Your task to perform on an android device: uninstall "Google Translate" Image 0: 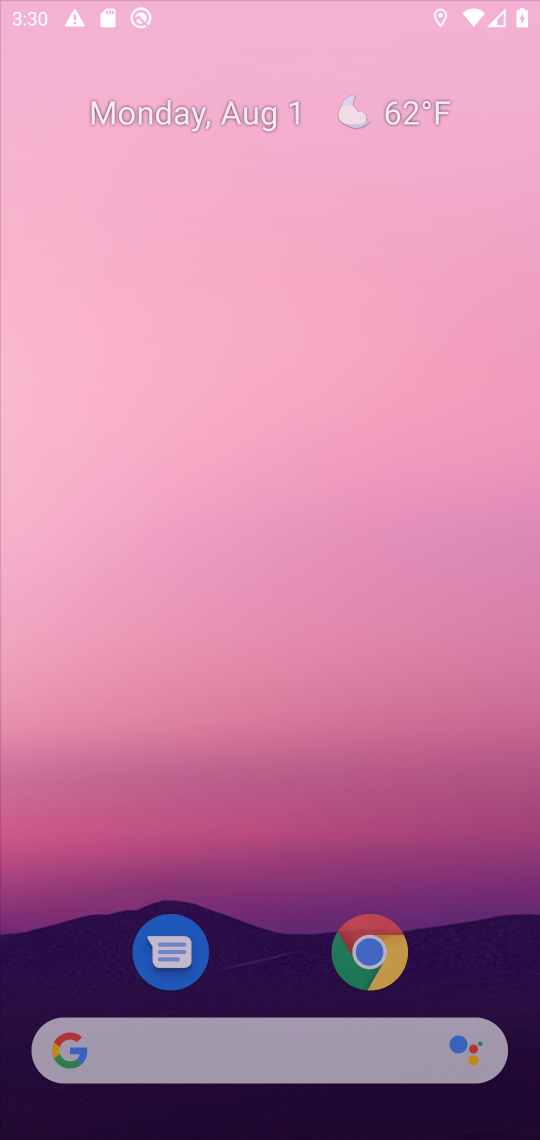
Step 0: click (29, 85)
Your task to perform on an android device: uninstall "Google Translate" Image 1: 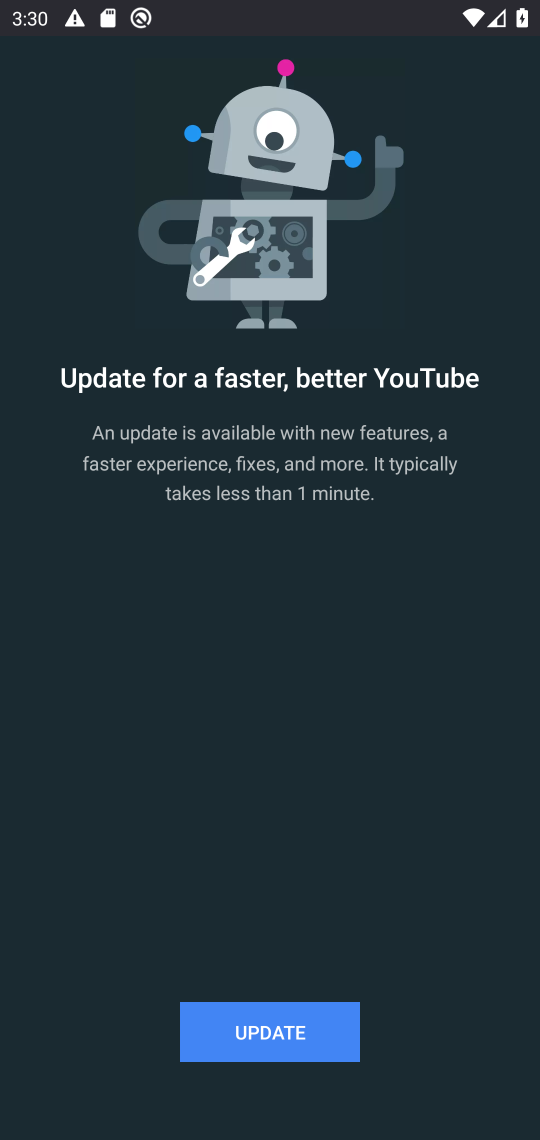
Step 1: click (44, 80)
Your task to perform on an android device: uninstall "Google Translate" Image 2: 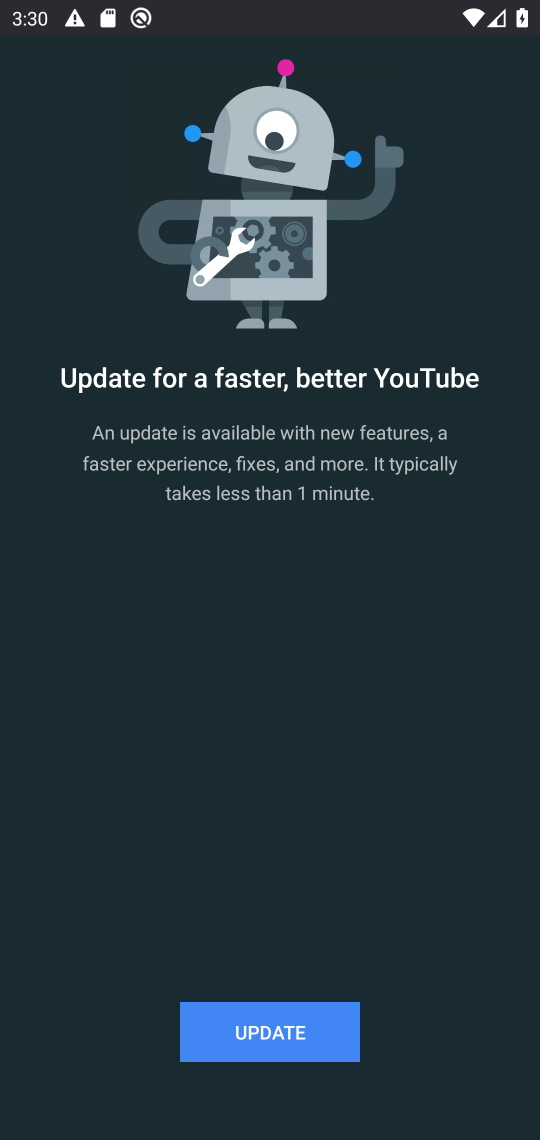
Step 2: press back button
Your task to perform on an android device: uninstall "Google Translate" Image 3: 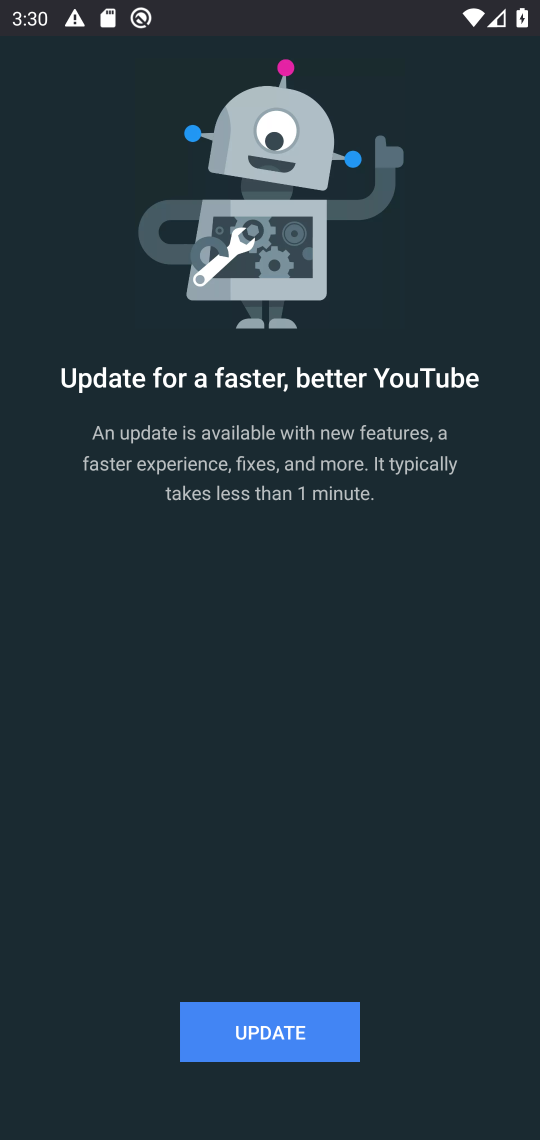
Step 3: press back button
Your task to perform on an android device: uninstall "Google Translate" Image 4: 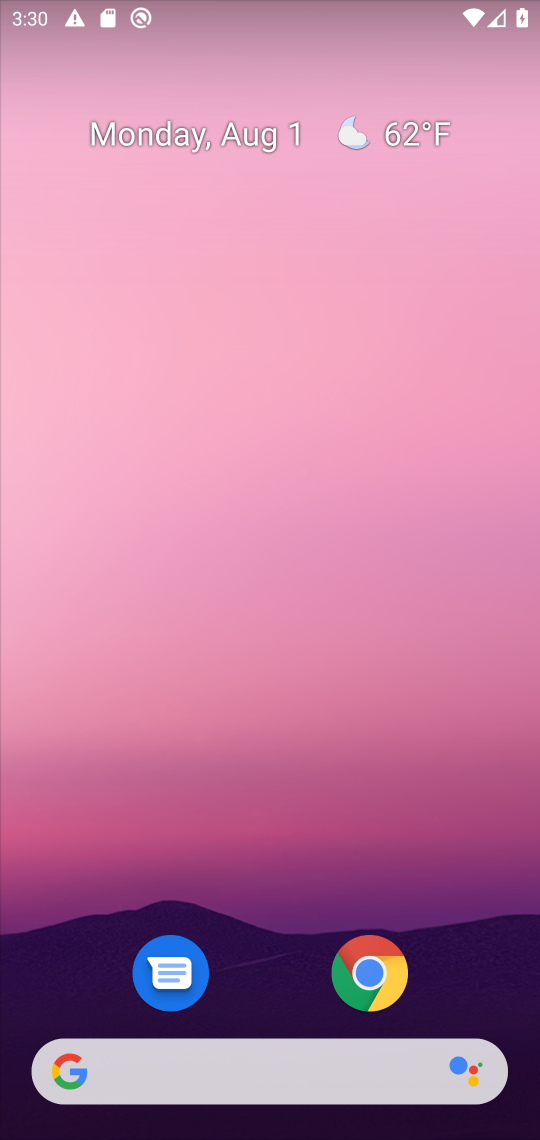
Step 4: press home button
Your task to perform on an android device: uninstall "Google Translate" Image 5: 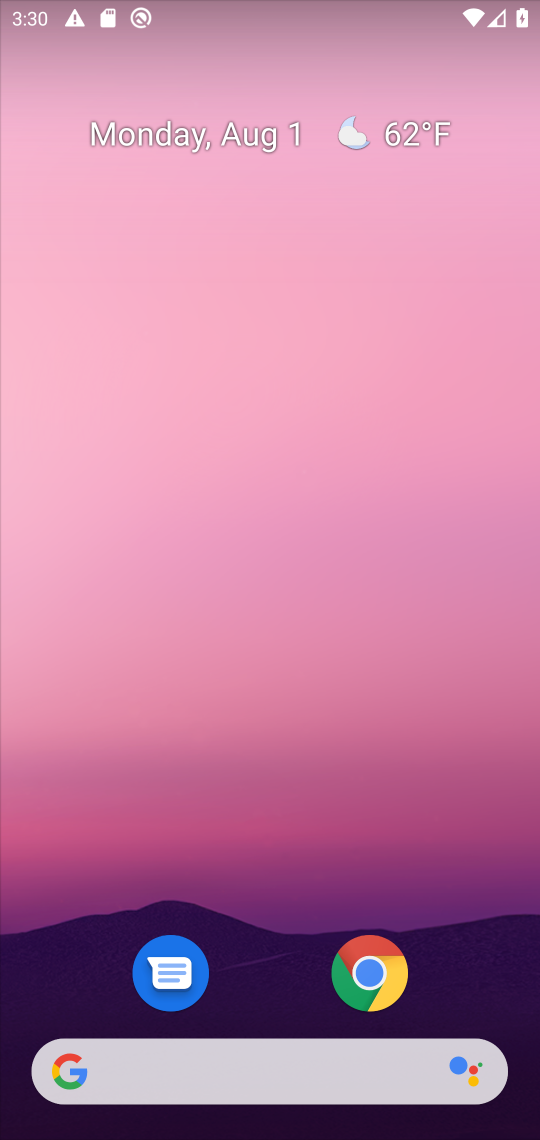
Step 5: drag from (325, 1076) to (84, 274)
Your task to perform on an android device: uninstall "Google Translate" Image 6: 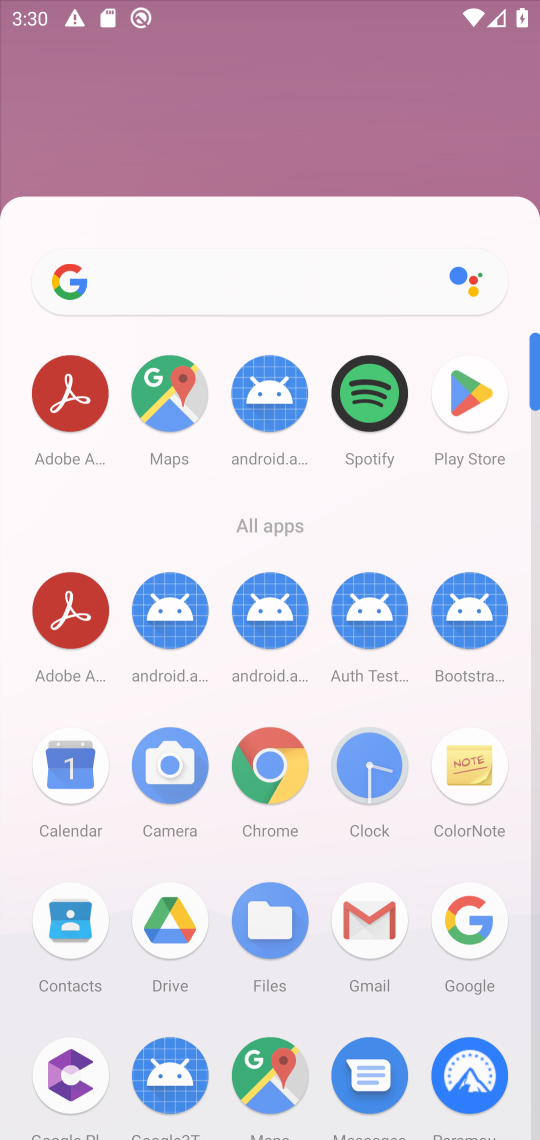
Step 6: drag from (273, 728) to (273, 431)
Your task to perform on an android device: uninstall "Google Translate" Image 7: 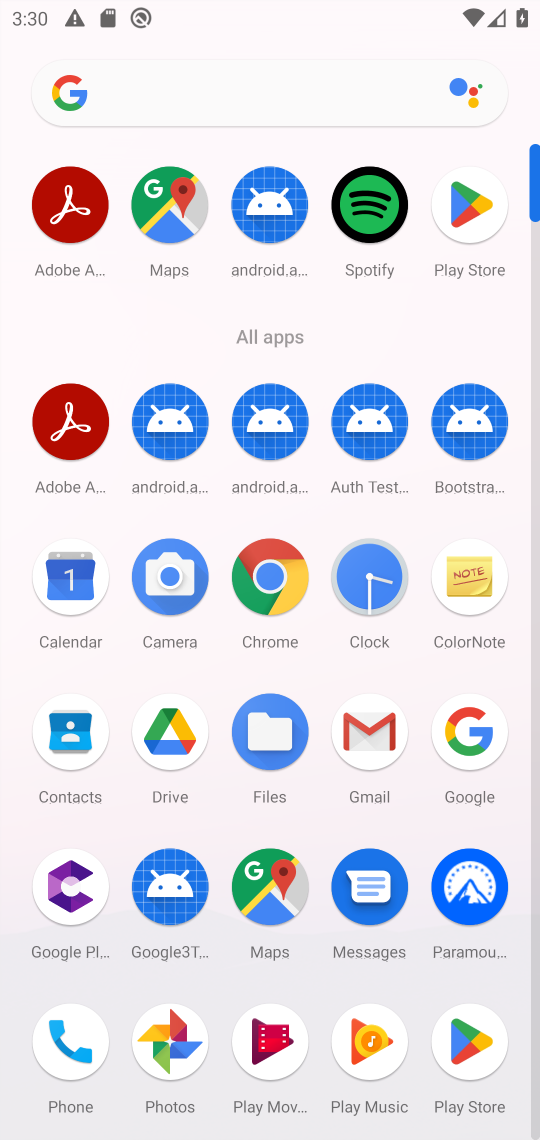
Step 7: click (460, 200)
Your task to perform on an android device: uninstall "Google Translate" Image 8: 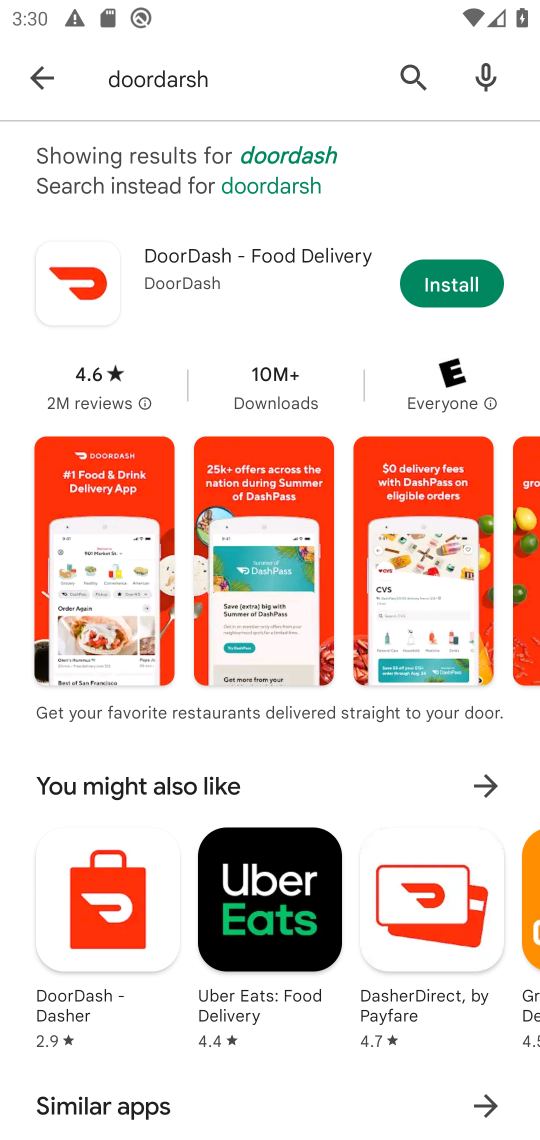
Step 8: click (43, 76)
Your task to perform on an android device: uninstall "Google Translate" Image 9: 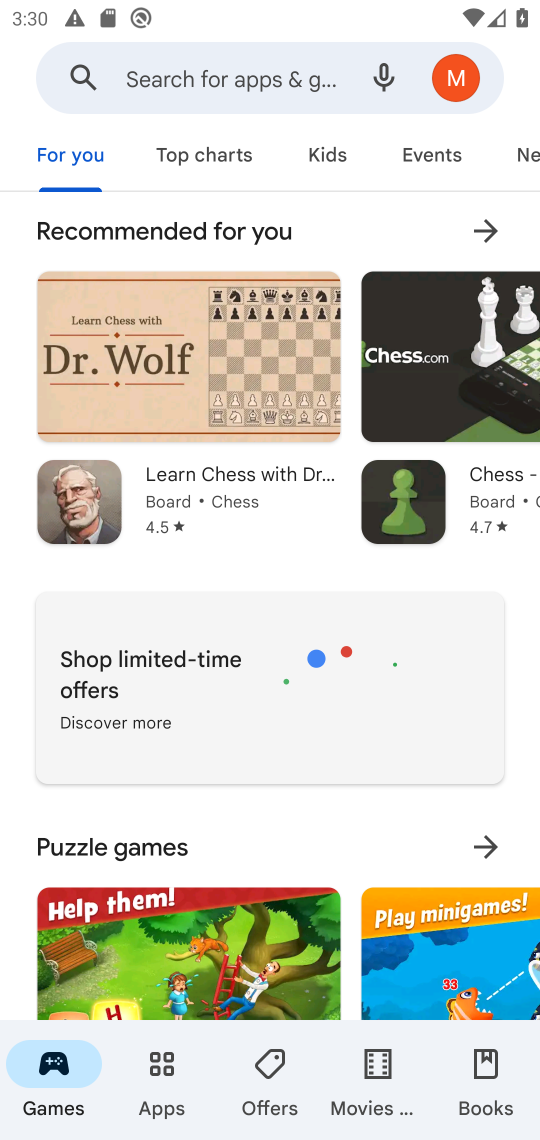
Step 9: click (161, 78)
Your task to perform on an android device: uninstall "Google Translate" Image 10: 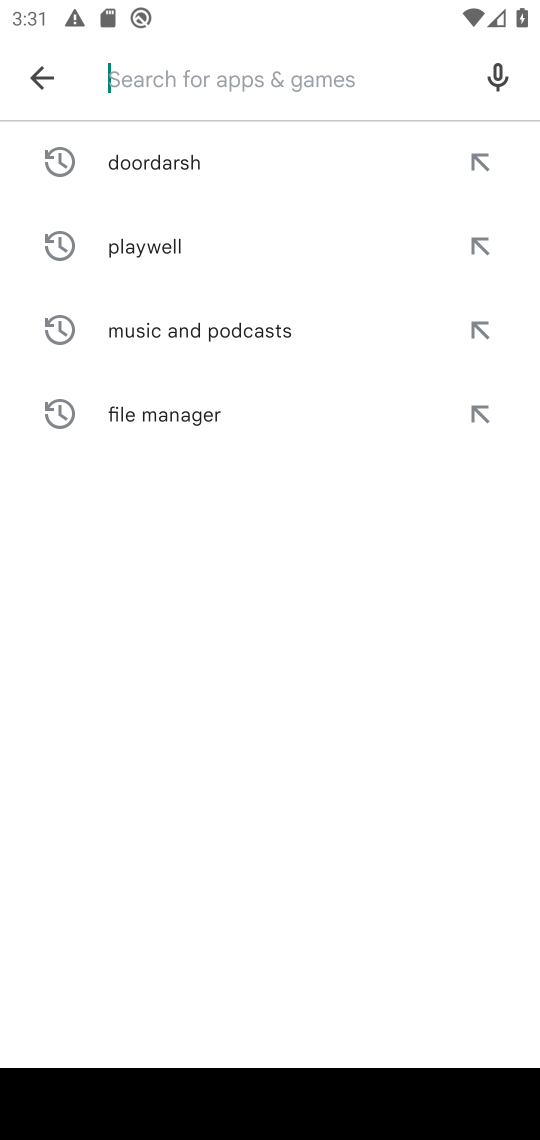
Step 10: type "Google Translate"
Your task to perform on an android device: uninstall "Google Translate" Image 11: 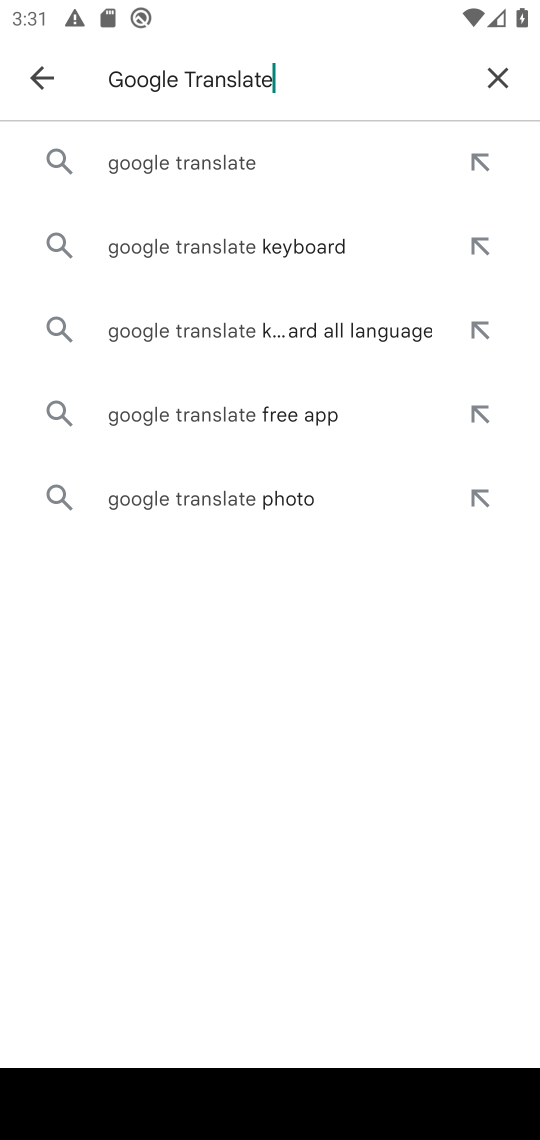
Step 11: click (177, 164)
Your task to perform on an android device: uninstall "Google Translate" Image 12: 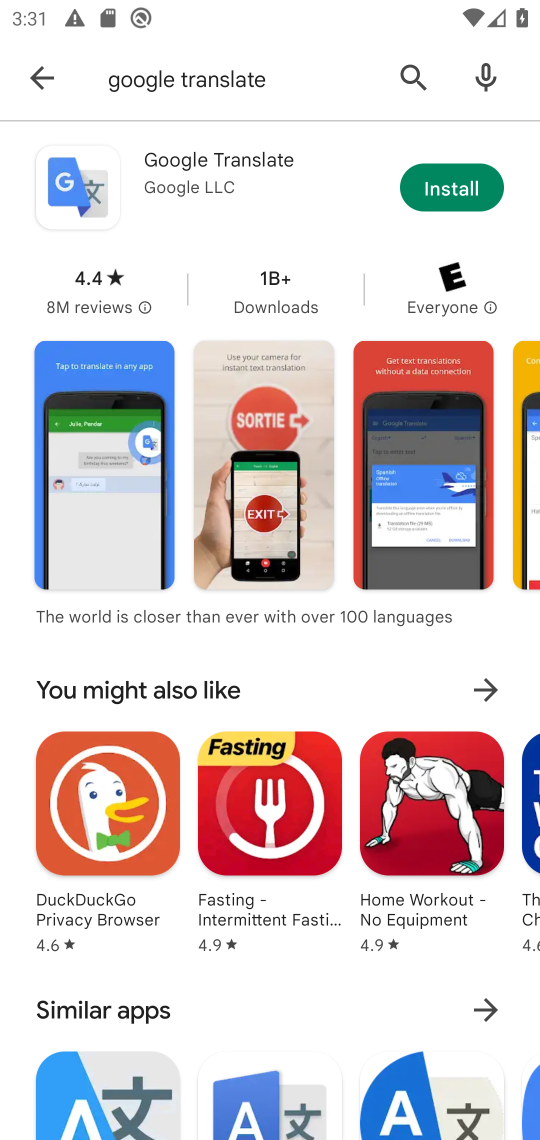
Step 12: task complete